Your task to perform on an android device: Go to privacy settings Image 0: 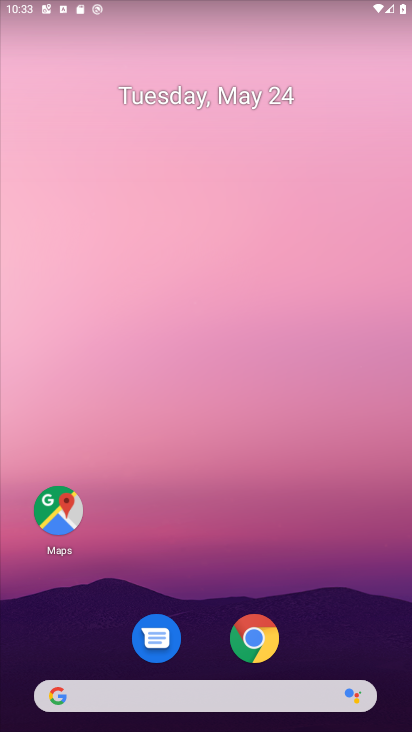
Step 0: drag from (218, 705) to (231, 139)
Your task to perform on an android device: Go to privacy settings Image 1: 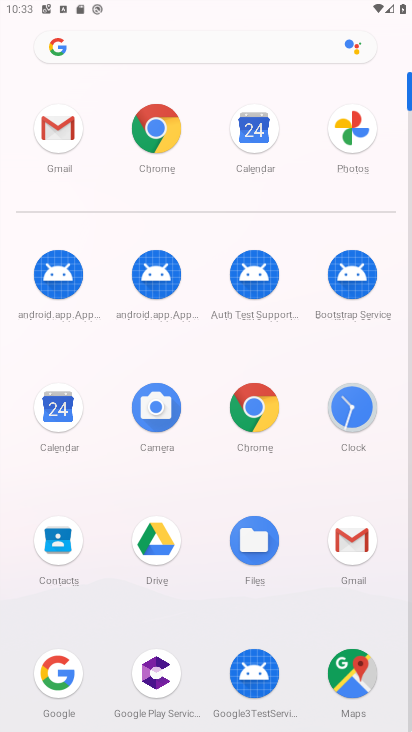
Step 1: drag from (238, 641) to (350, 1)
Your task to perform on an android device: Go to privacy settings Image 2: 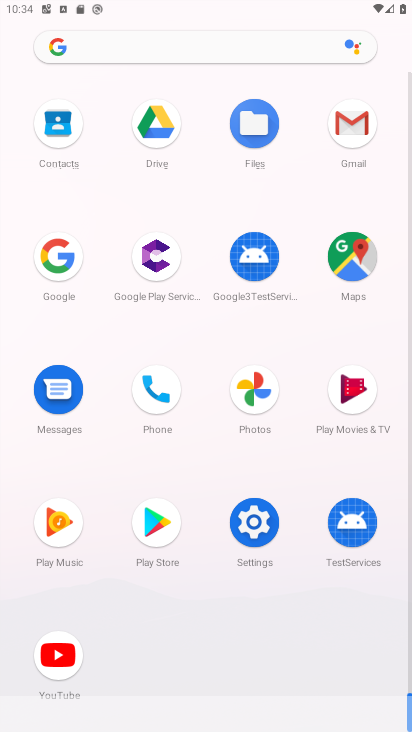
Step 2: click (249, 528)
Your task to perform on an android device: Go to privacy settings Image 3: 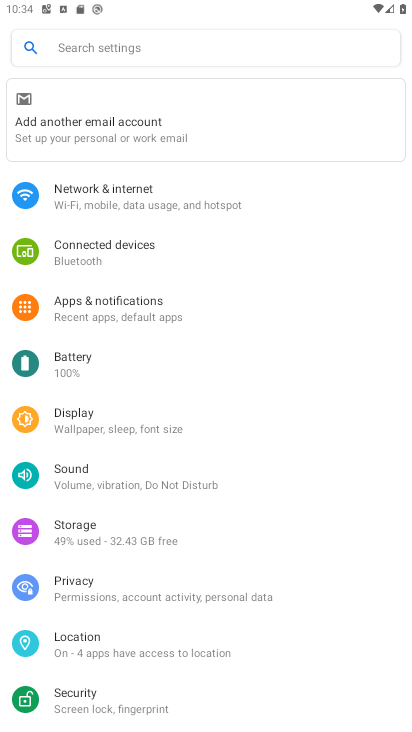
Step 3: click (100, 601)
Your task to perform on an android device: Go to privacy settings Image 4: 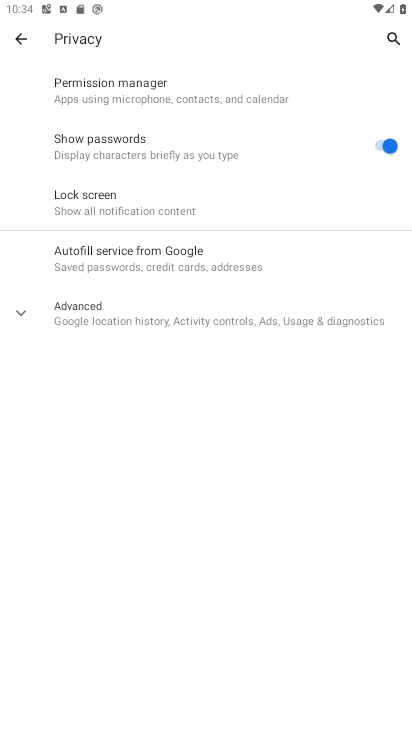
Step 4: task complete